Your task to perform on an android device: Open settings on Google Maps Image 0: 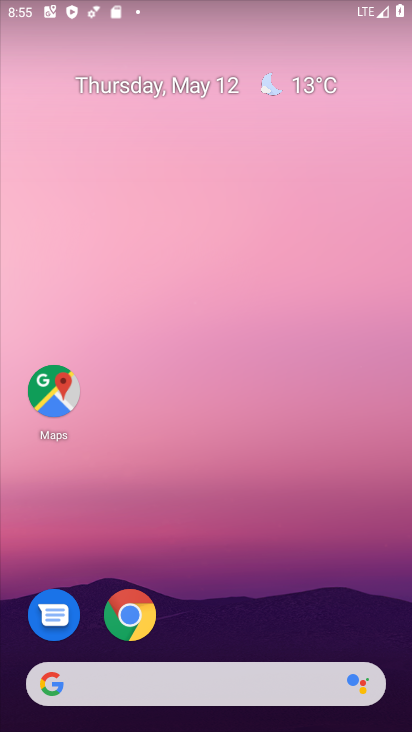
Step 0: drag from (208, 647) to (198, 7)
Your task to perform on an android device: Open settings on Google Maps Image 1: 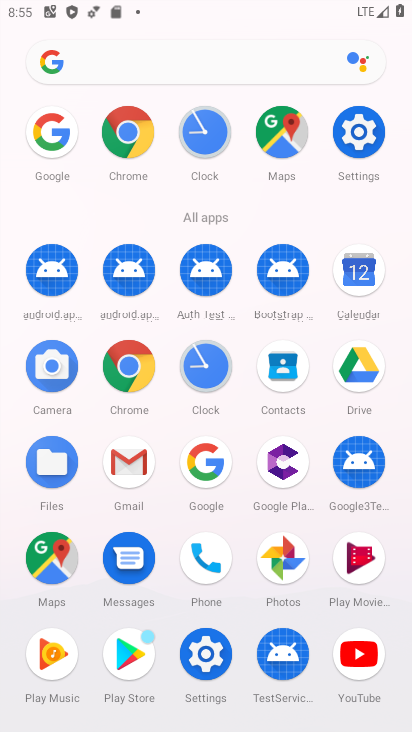
Step 1: click (56, 562)
Your task to perform on an android device: Open settings on Google Maps Image 2: 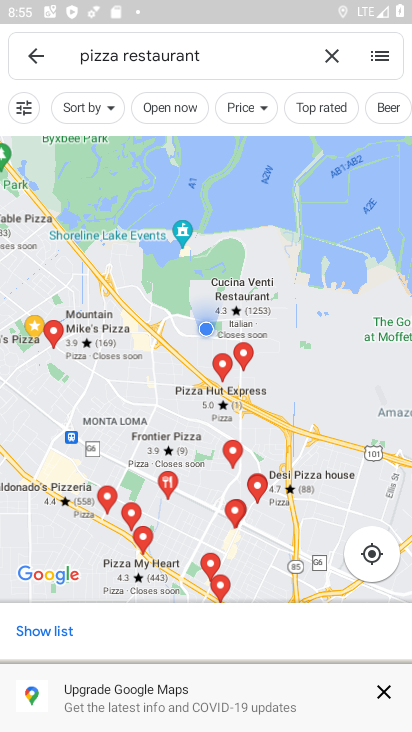
Step 2: click (36, 45)
Your task to perform on an android device: Open settings on Google Maps Image 3: 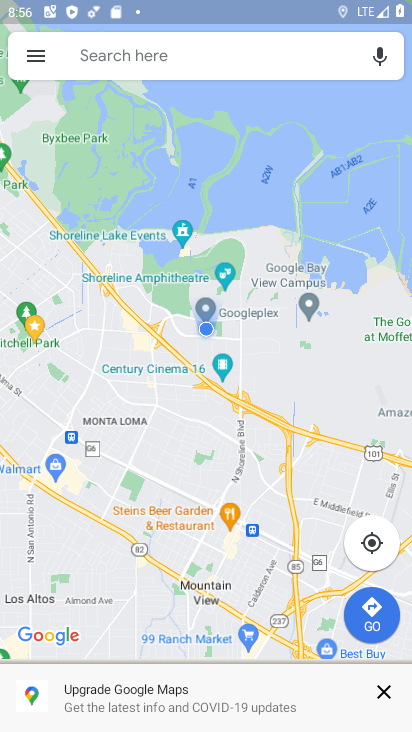
Step 3: click (28, 73)
Your task to perform on an android device: Open settings on Google Maps Image 4: 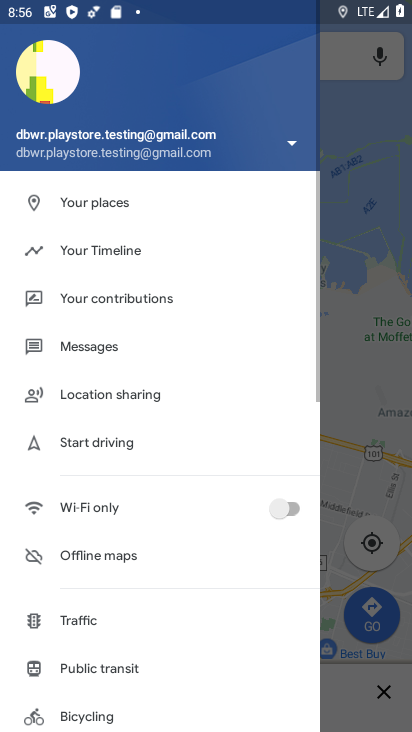
Step 4: drag from (71, 527) to (125, 0)
Your task to perform on an android device: Open settings on Google Maps Image 5: 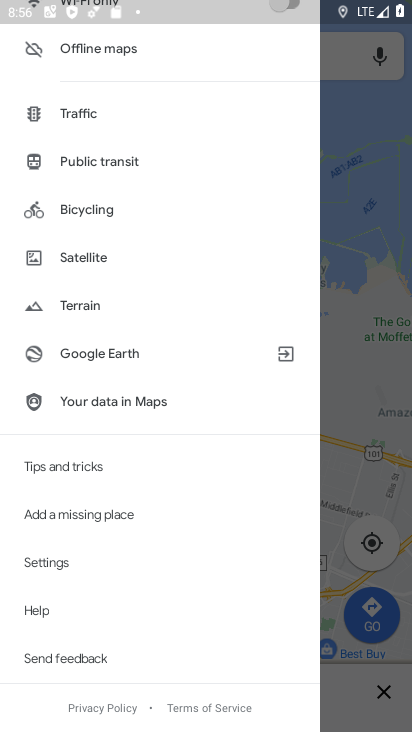
Step 5: click (37, 540)
Your task to perform on an android device: Open settings on Google Maps Image 6: 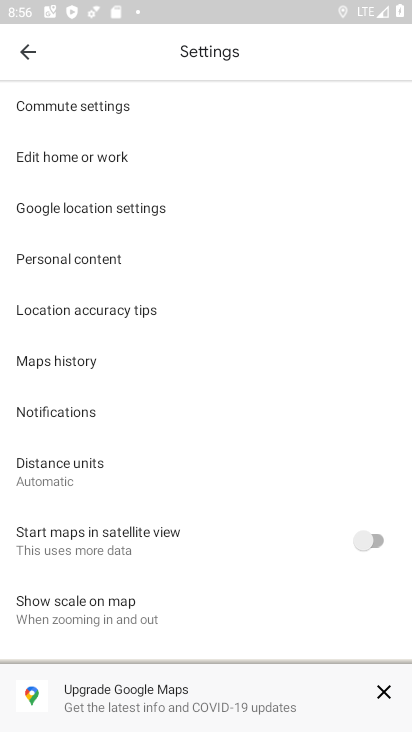
Step 6: task complete